Your task to perform on an android device: Open Google Chrome and open the bookmarks view Image 0: 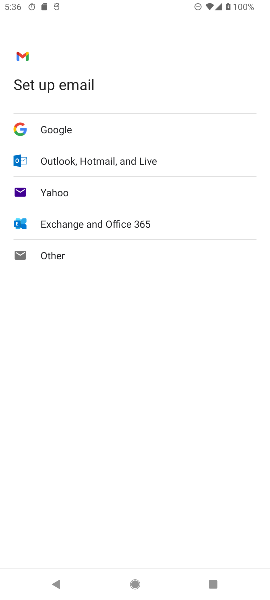
Step 0: press back button
Your task to perform on an android device: Open Google Chrome and open the bookmarks view Image 1: 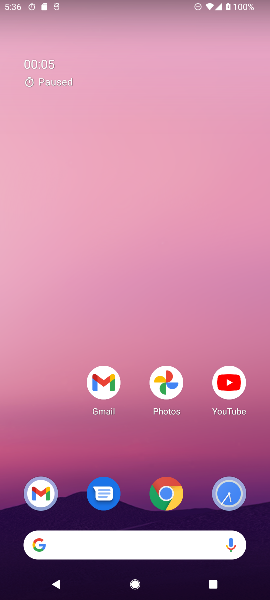
Step 1: drag from (167, 554) to (97, 215)
Your task to perform on an android device: Open Google Chrome and open the bookmarks view Image 2: 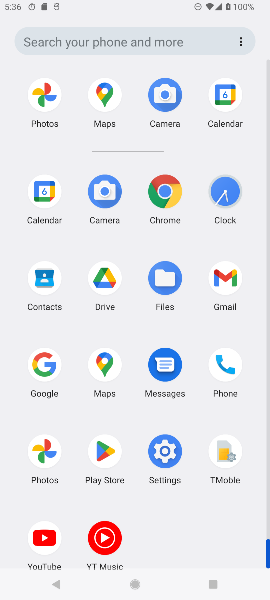
Step 2: drag from (191, 494) to (155, 249)
Your task to perform on an android device: Open Google Chrome and open the bookmarks view Image 3: 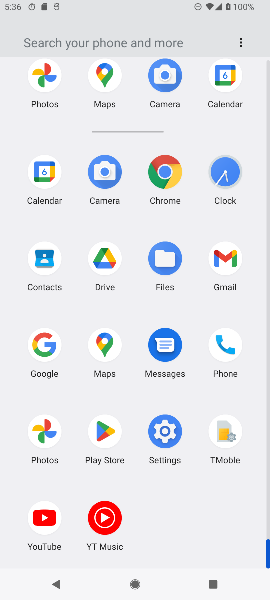
Step 3: click (155, 167)
Your task to perform on an android device: Open Google Chrome and open the bookmarks view Image 4: 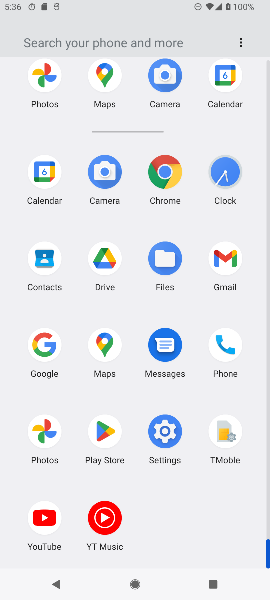
Step 4: click (155, 167)
Your task to perform on an android device: Open Google Chrome and open the bookmarks view Image 5: 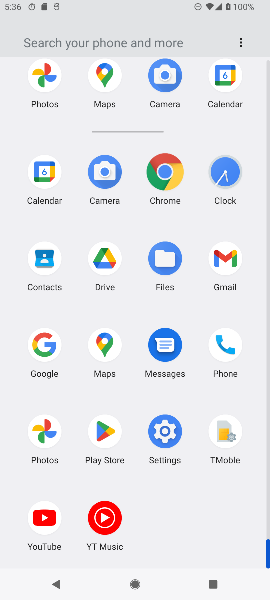
Step 5: click (156, 166)
Your task to perform on an android device: Open Google Chrome and open the bookmarks view Image 6: 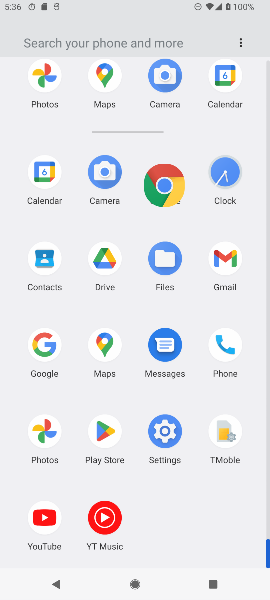
Step 6: click (156, 166)
Your task to perform on an android device: Open Google Chrome and open the bookmarks view Image 7: 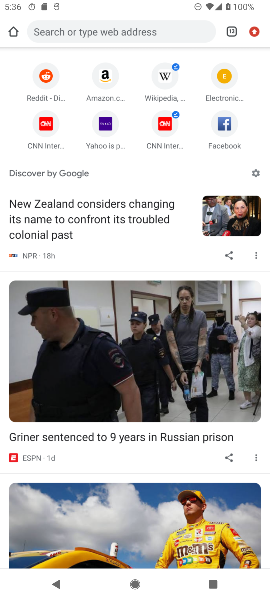
Step 7: click (156, 166)
Your task to perform on an android device: Open Google Chrome and open the bookmarks view Image 8: 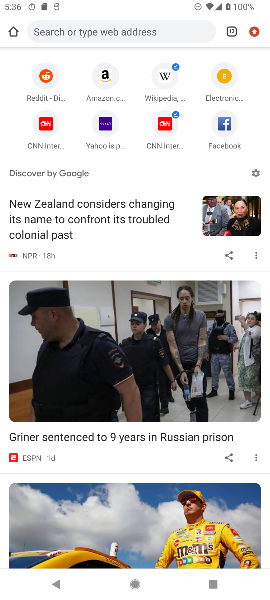
Step 8: click (250, 30)
Your task to perform on an android device: Open Google Chrome and open the bookmarks view Image 9: 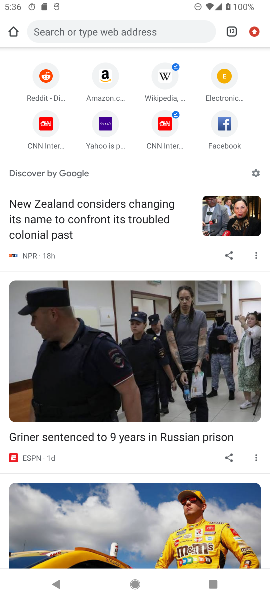
Step 9: click (250, 30)
Your task to perform on an android device: Open Google Chrome and open the bookmarks view Image 10: 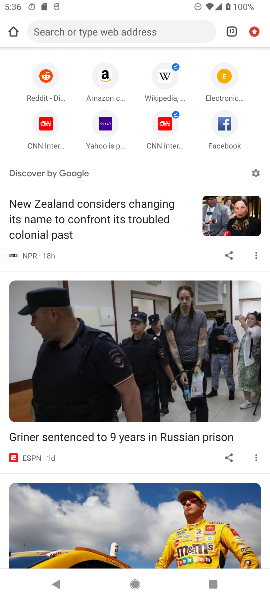
Step 10: click (250, 30)
Your task to perform on an android device: Open Google Chrome and open the bookmarks view Image 11: 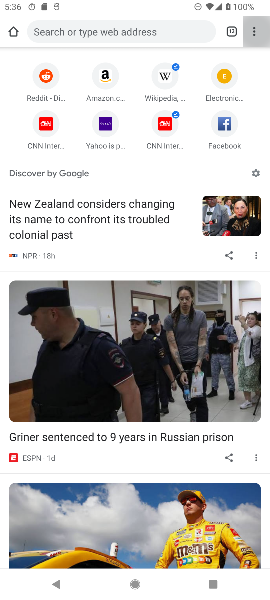
Step 11: drag from (250, 30) to (165, 214)
Your task to perform on an android device: Open Google Chrome and open the bookmarks view Image 12: 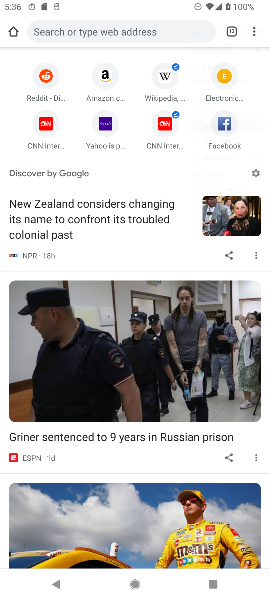
Step 12: click (167, 215)
Your task to perform on an android device: Open Google Chrome and open the bookmarks view Image 13: 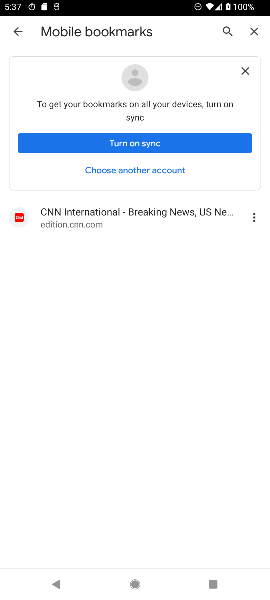
Step 13: click (234, 79)
Your task to perform on an android device: Open Google Chrome and open the bookmarks view Image 14: 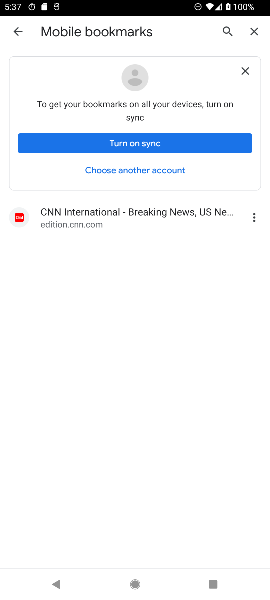
Step 14: task complete